Your task to perform on an android device: Is it going to rain tomorrow? Image 0: 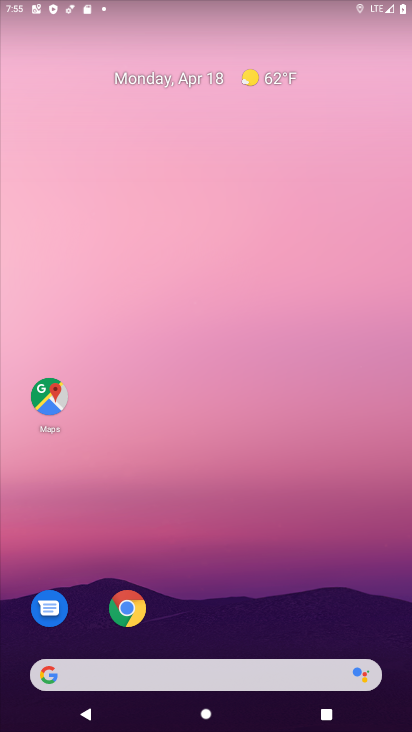
Step 0: drag from (39, 233) to (380, 224)
Your task to perform on an android device: Is it going to rain tomorrow? Image 1: 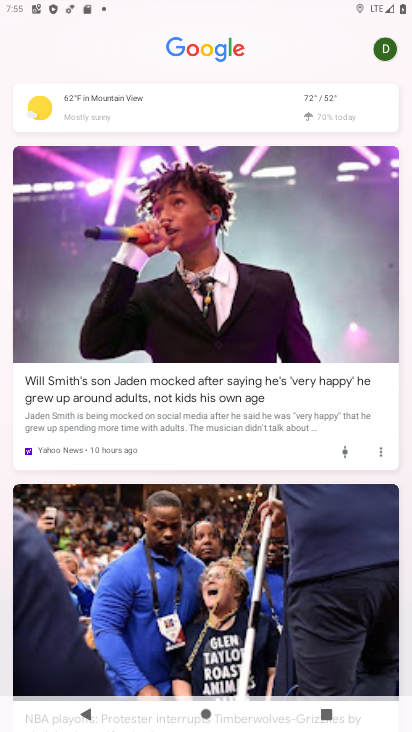
Step 1: click (35, 115)
Your task to perform on an android device: Is it going to rain tomorrow? Image 2: 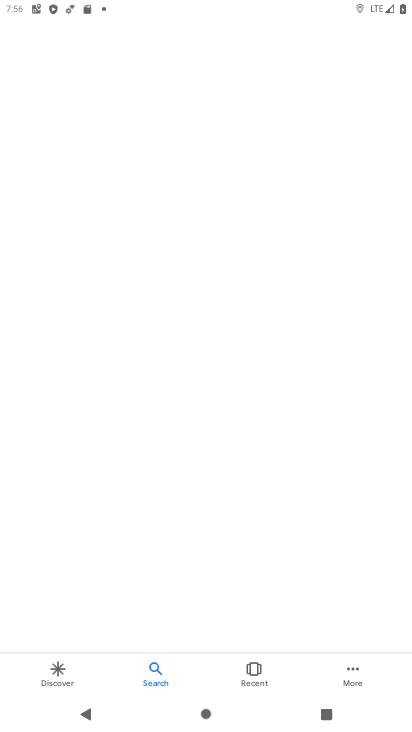
Step 2: drag from (206, 499) to (161, 168)
Your task to perform on an android device: Is it going to rain tomorrow? Image 3: 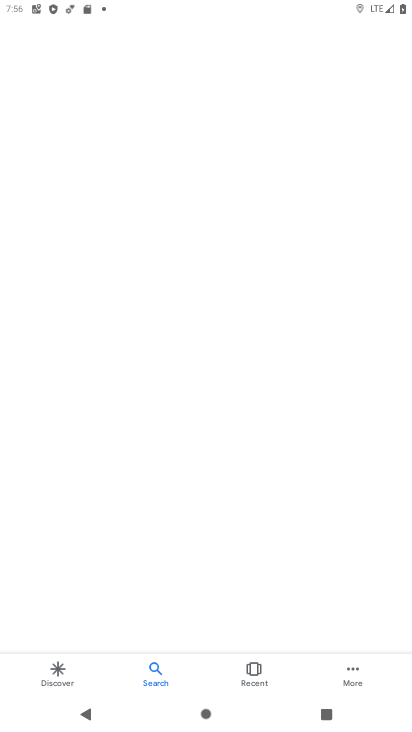
Step 3: drag from (154, 241) to (166, 570)
Your task to perform on an android device: Is it going to rain tomorrow? Image 4: 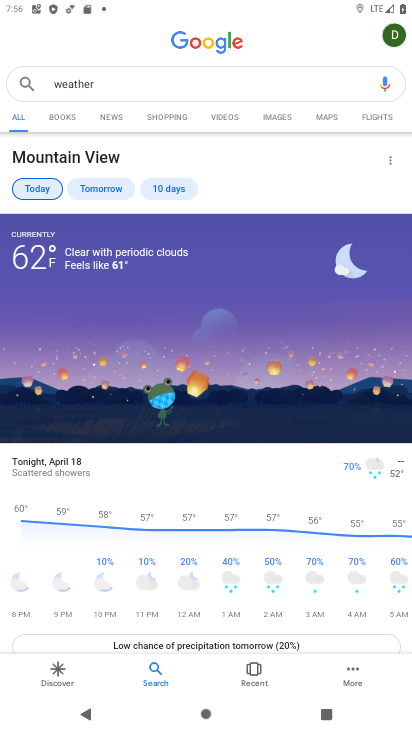
Step 4: click (116, 190)
Your task to perform on an android device: Is it going to rain tomorrow? Image 5: 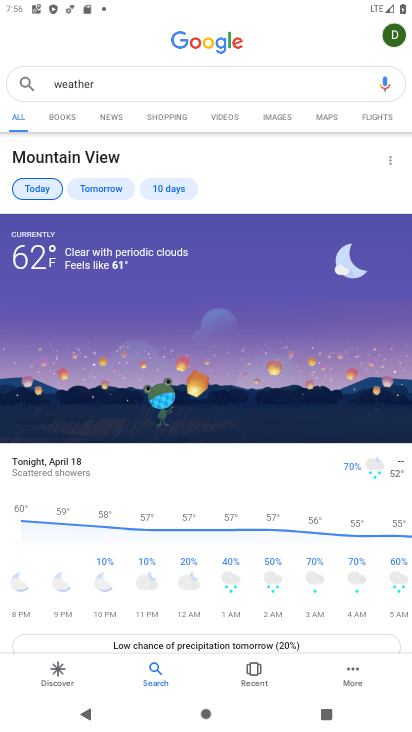
Step 5: click (147, 189)
Your task to perform on an android device: Is it going to rain tomorrow? Image 6: 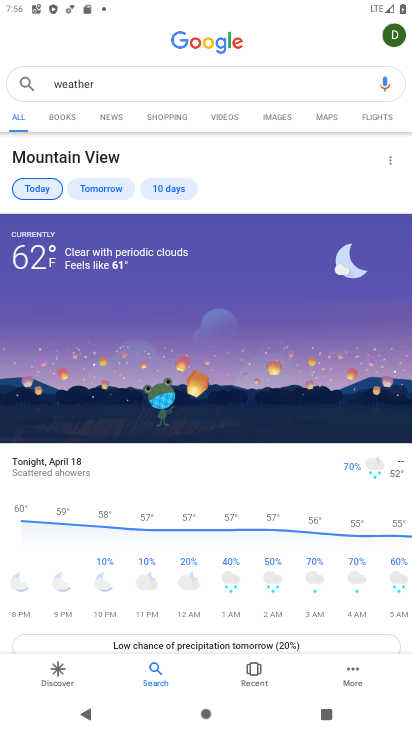
Step 6: drag from (221, 564) to (197, 200)
Your task to perform on an android device: Is it going to rain tomorrow? Image 7: 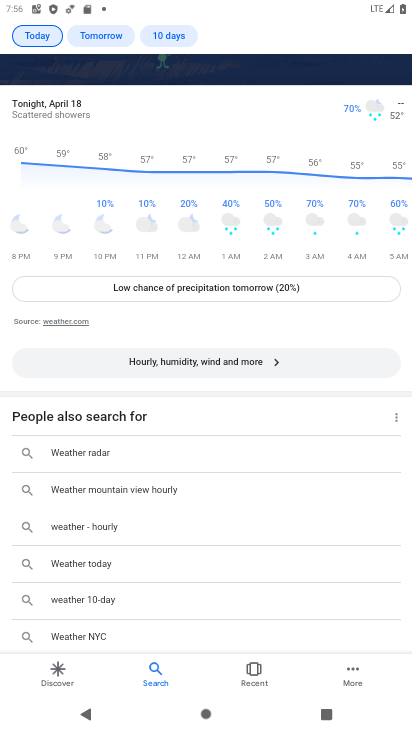
Step 7: click (105, 602)
Your task to perform on an android device: Is it going to rain tomorrow? Image 8: 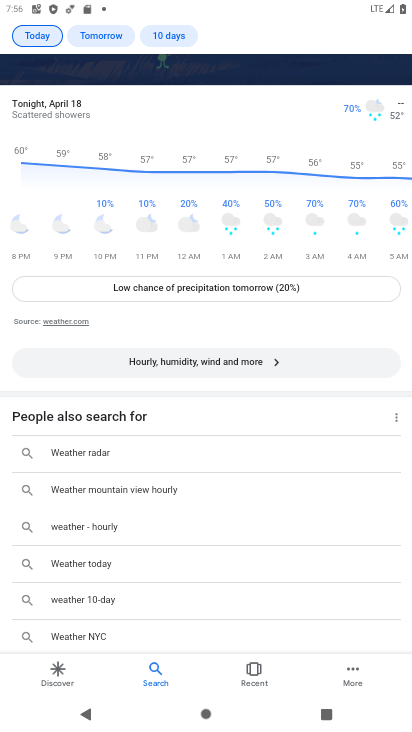
Step 8: click (105, 602)
Your task to perform on an android device: Is it going to rain tomorrow? Image 9: 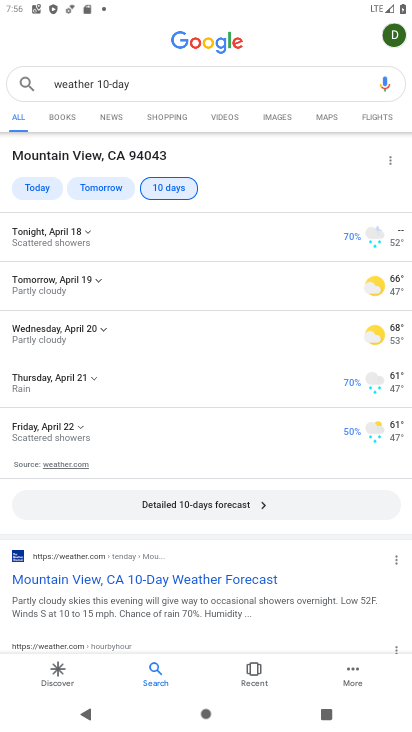
Step 9: click (154, 286)
Your task to perform on an android device: Is it going to rain tomorrow? Image 10: 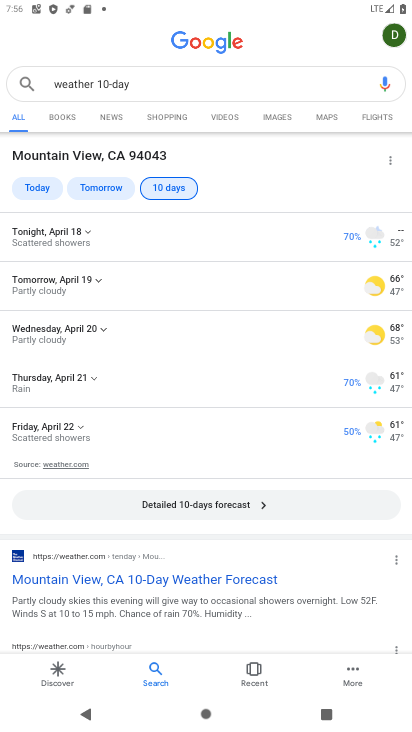
Step 10: click (98, 283)
Your task to perform on an android device: Is it going to rain tomorrow? Image 11: 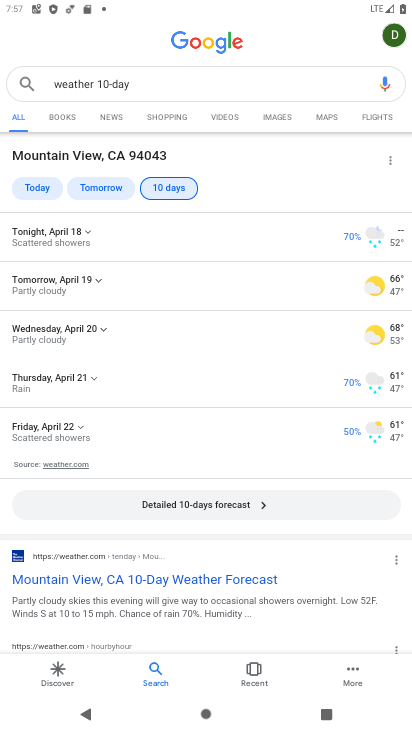
Step 11: click (98, 283)
Your task to perform on an android device: Is it going to rain tomorrow? Image 12: 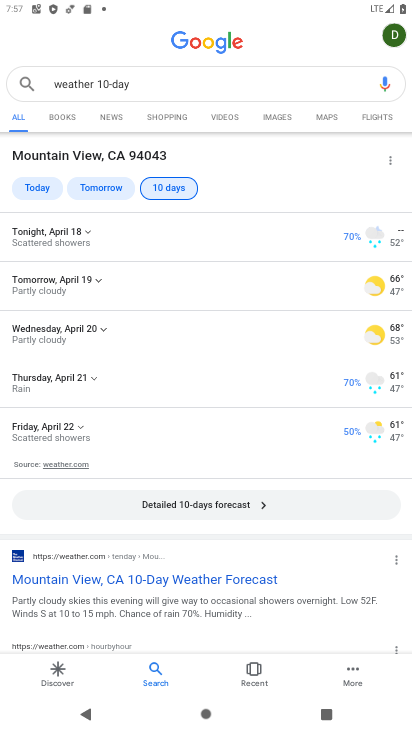
Step 12: click (88, 286)
Your task to perform on an android device: Is it going to rain tomorrow? Image 13: 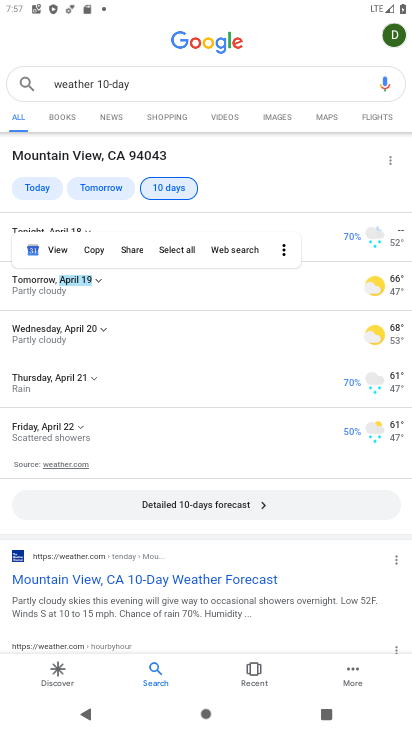
Step 13: click (234, 309)
Your task to perform on an android device: Is it going to rain tomorrow? Image 14: 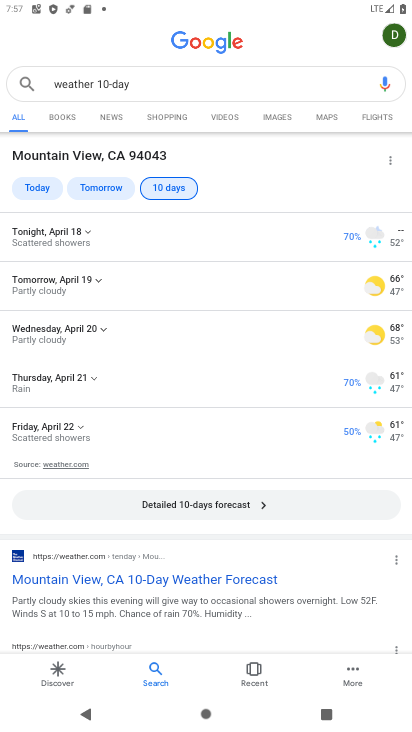
Step 14: task complete